Your task to perform on an android device: turn on the 12-hour format for clock Image 0: 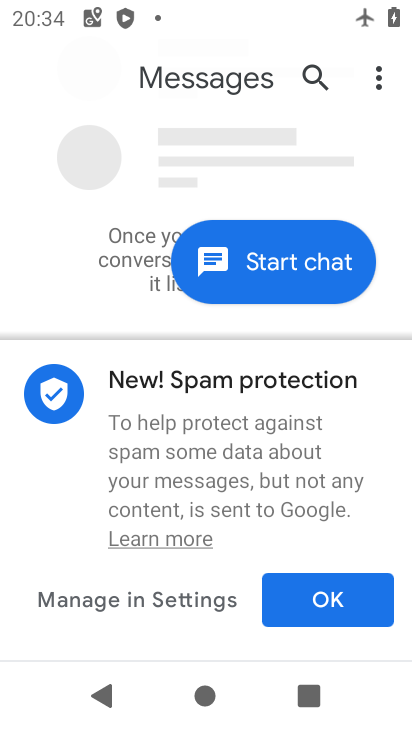
Step 0: press home button
Your task to perform on an android device: turn on the 12-hour format for clock Image 1: 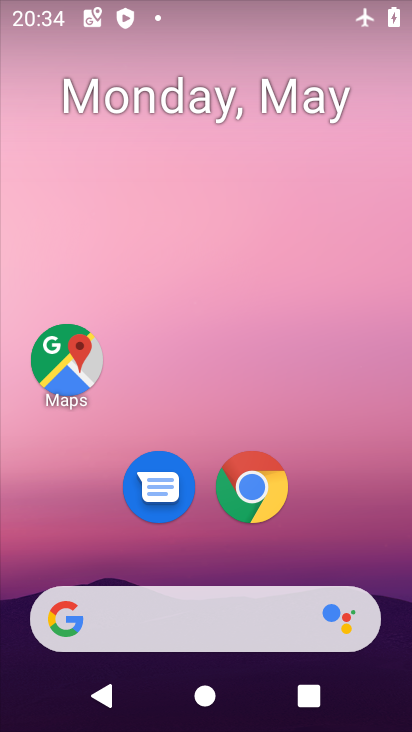
Step 1: drag from (348, 532) to (367, 189)
Your task to perform on an android device: turn on the 12-hour format for clock Image 2: 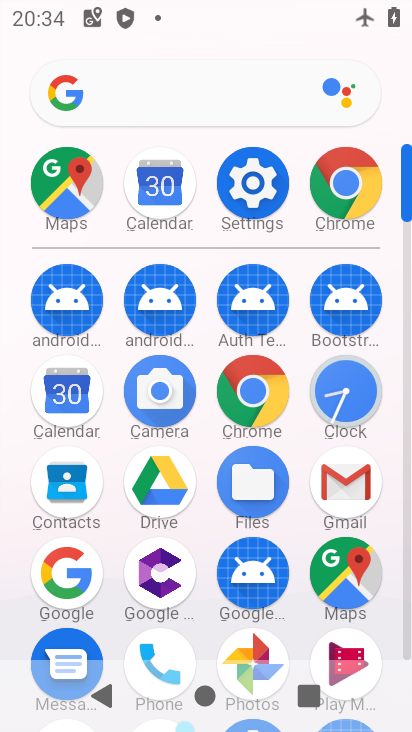
Step 2: click (365, 409)
Your task to perform on an android device: turn on the 12-hour format for clock Image 3: 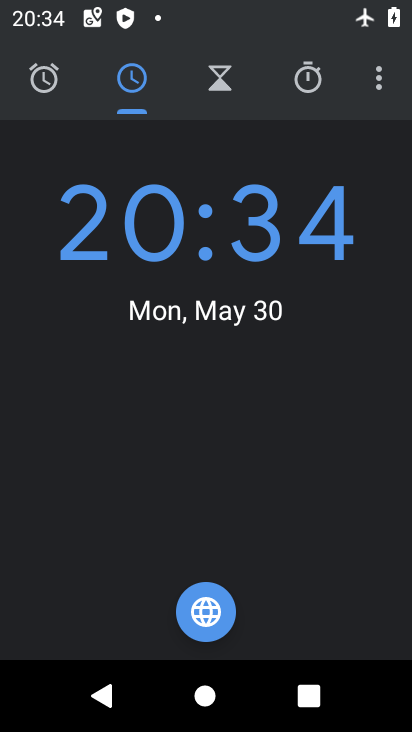
Step 3: click (376, 93)
Your task to perform on an android device: turn on the 12-hour format for clock Image 4: 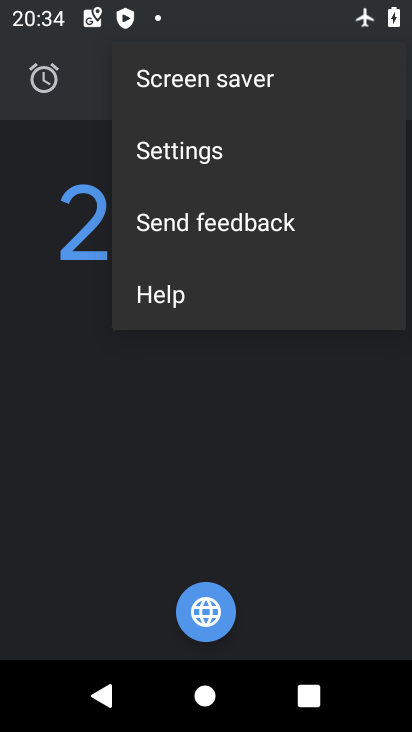
Step 4: click (209, 156)
Your task to perform on an android device: turn on the 12-hour format for clock Image 5: 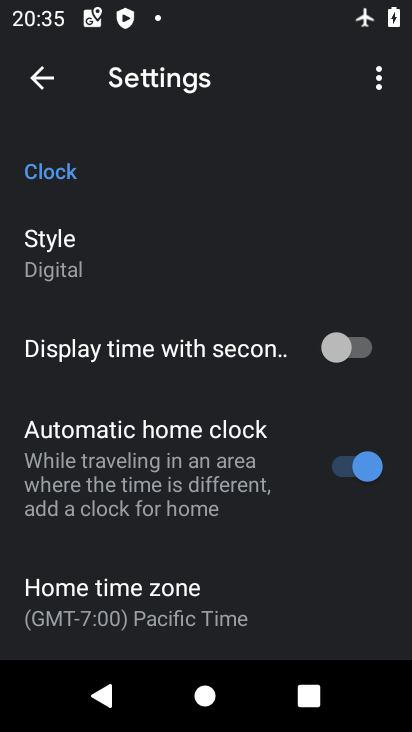
Step 5: drag from (345, 552) to (363, 451)
Your task to perform on an android device: turn on the 12-hour format for clock Image 6: 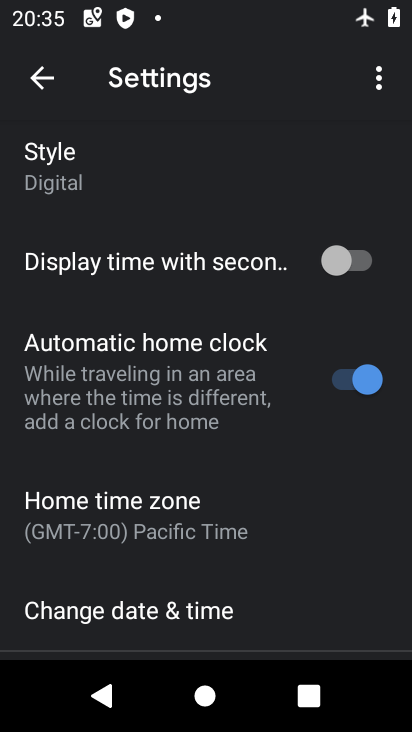
Step 6: drag from (343, 586) to (374, 416)
Your task to perform on an android device: turn on the 12-hour format for clock Image 7: 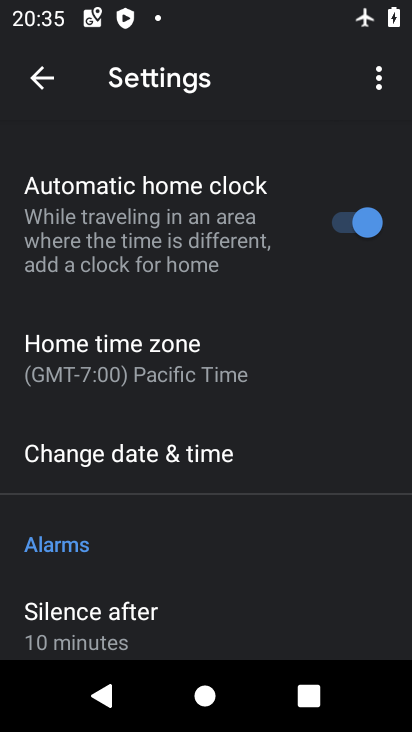
Step 7: drag from (351, 554) to (357, 432)
Your task to perform on an android device: turn on the 12-hour format for clock Image 8: 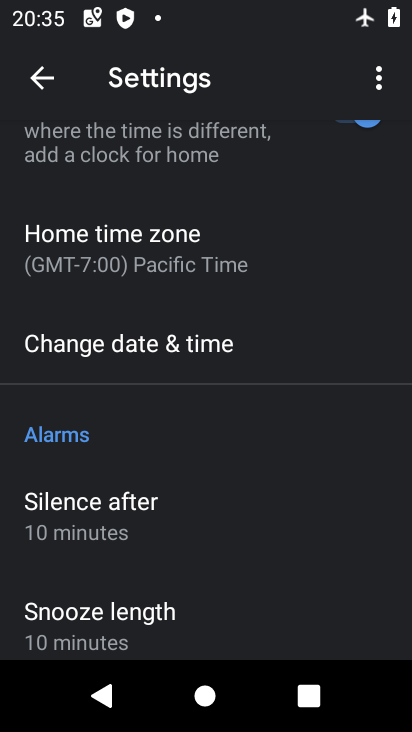
Step 8: drag from (365, 569) to (367, 437)
Your task to perform on an android device: turn on the 12-hour format for clock Image 9: 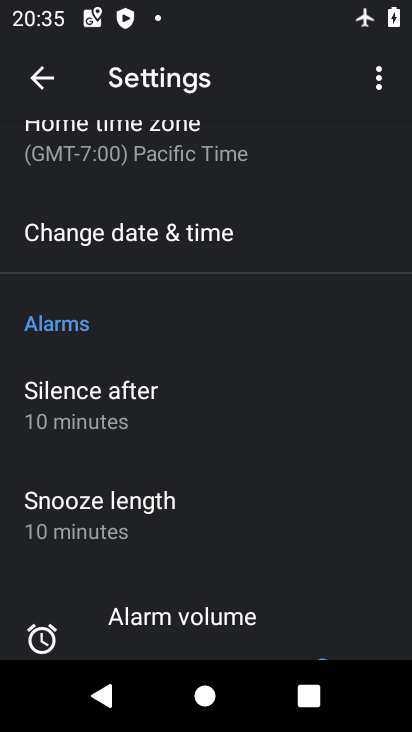
Step 9: drag from (342, 583) to (348, 452)
Your task to perform on an android device: turn on the 12-hour format for clock Image 10: 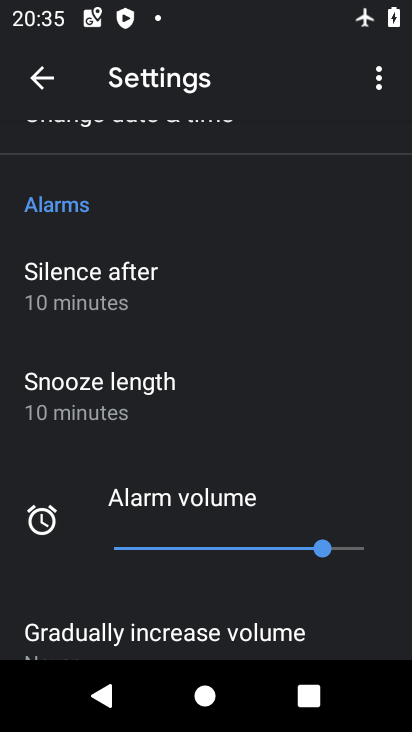
Step 10: drag from (345, 311) to (363, 493)
Your task to perform on an android device: turn on the 12-hour format for clock Image 11: 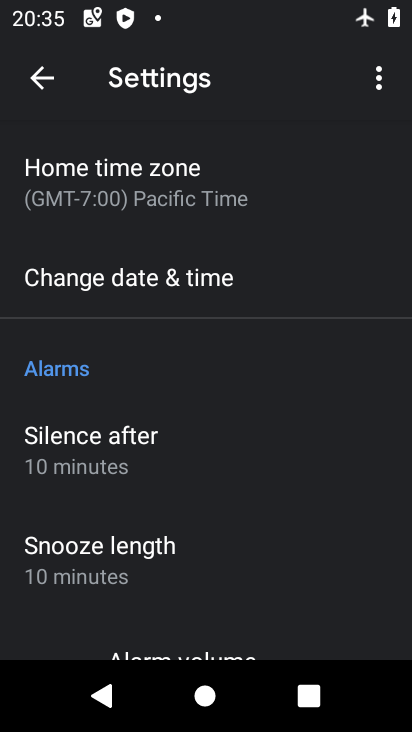
Step 11: drag from (353, 353) to (344, 516)
Your task to perform on an android device: turn on the 12-hour format for clock Image 12: 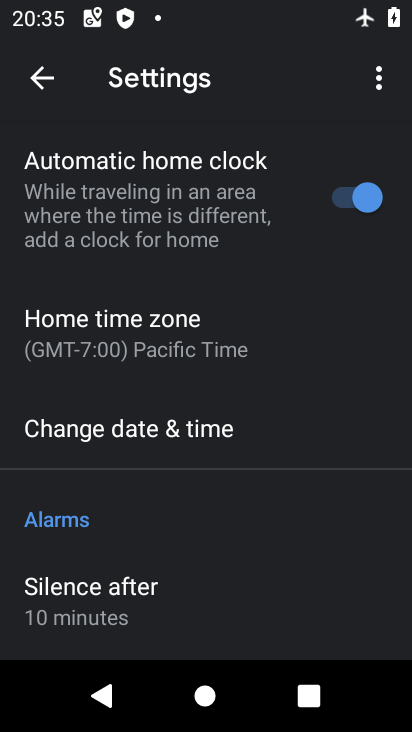
Step 12: drag from (361, 386) to (361, 485)
Your task to perform on an android device: turn on the 12-hour format for clock Image 13: 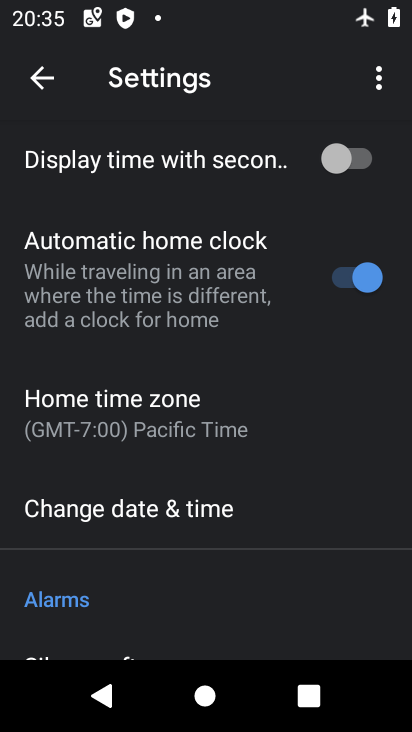
Step 13: click (265, 523)
Your task to perform on an android device: turn on the 12-hour format for clock Image 14: 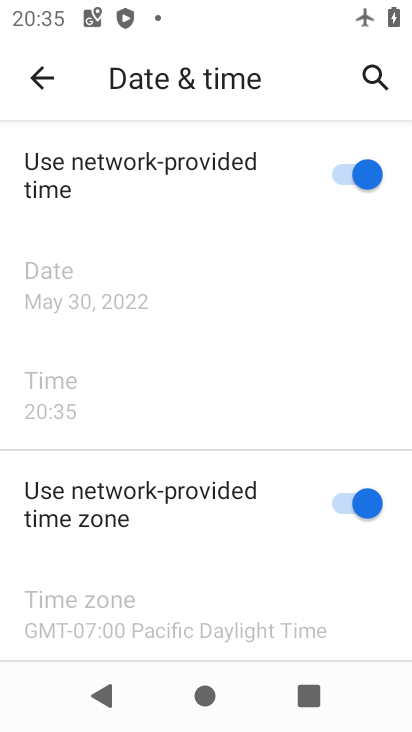
Step 14: drag from (289, 577) to (311, 438)
Your task to perform on an android device: turn on the 12-hour format for clock Image 15: 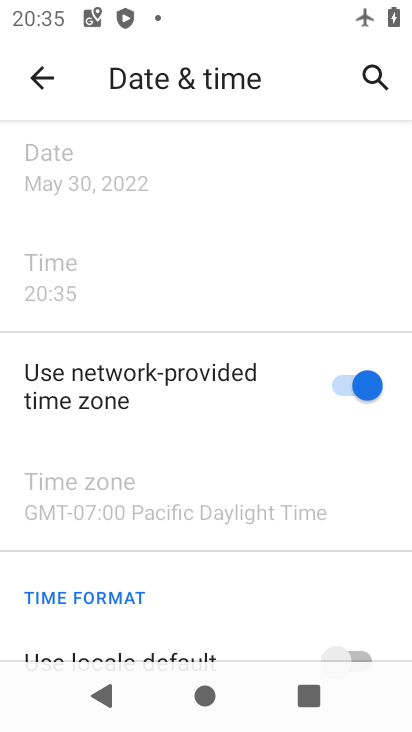
Step 15: drag from (294, 618) to (289, 471)
Your task to perform on an android device: turn on the 12-hour format for clock Image 16: 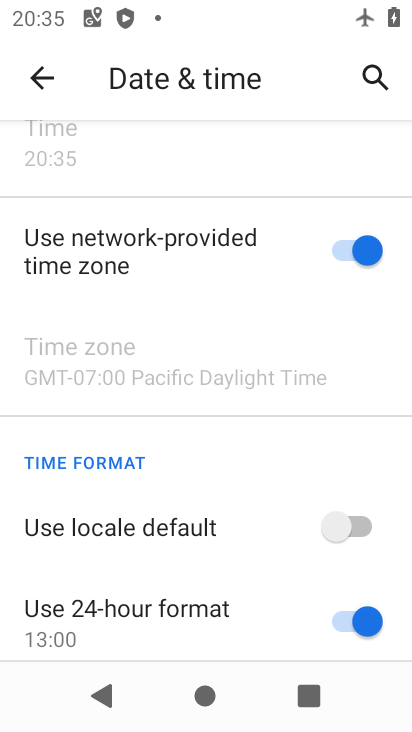
Step 16: drag from (278, 614) to (280, 478)
Your task to perform on an android device: turn on the 12-hour format for clock Image 17: 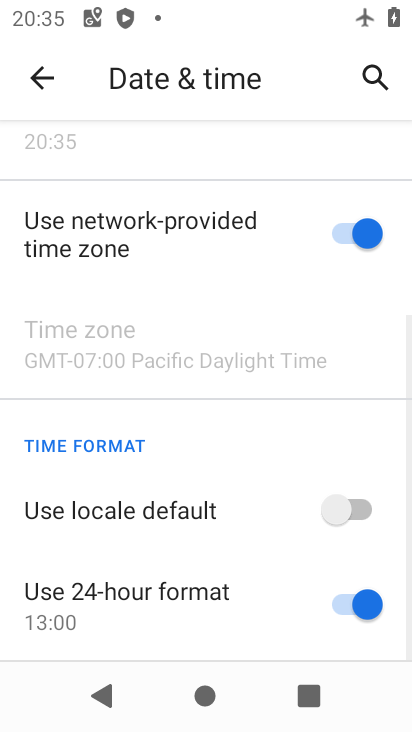
Step 17: click (350, 603)
Your task to perform on an android device: turn on the 12-hour format for clock Image 18: 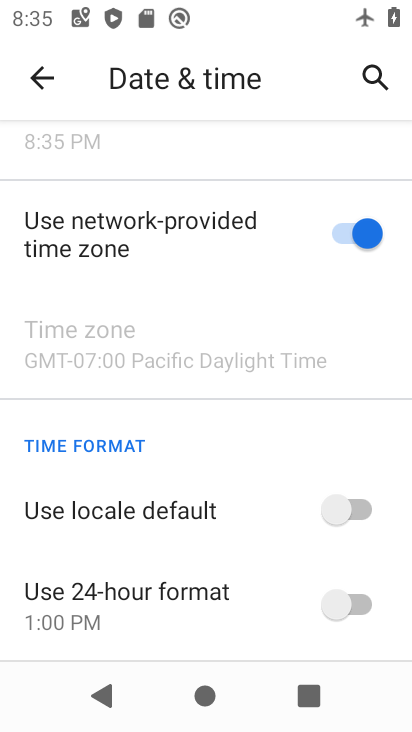
Step 18: task complete